Your task to perform on an android device: Open internet settings Image 0: 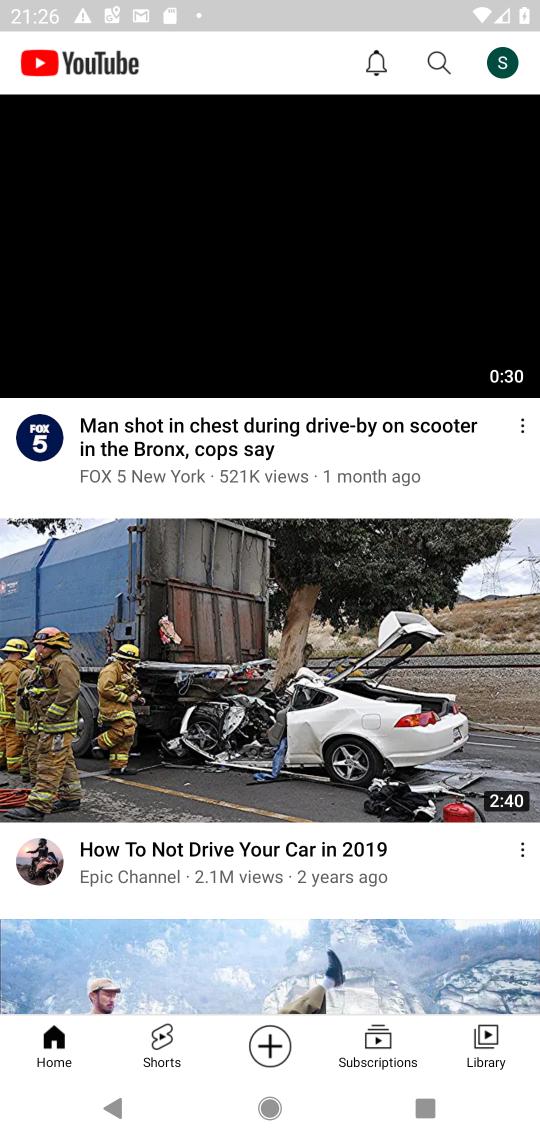
Step 0: press home button
Your task to perform on an android device: Open internet settings Image 1: 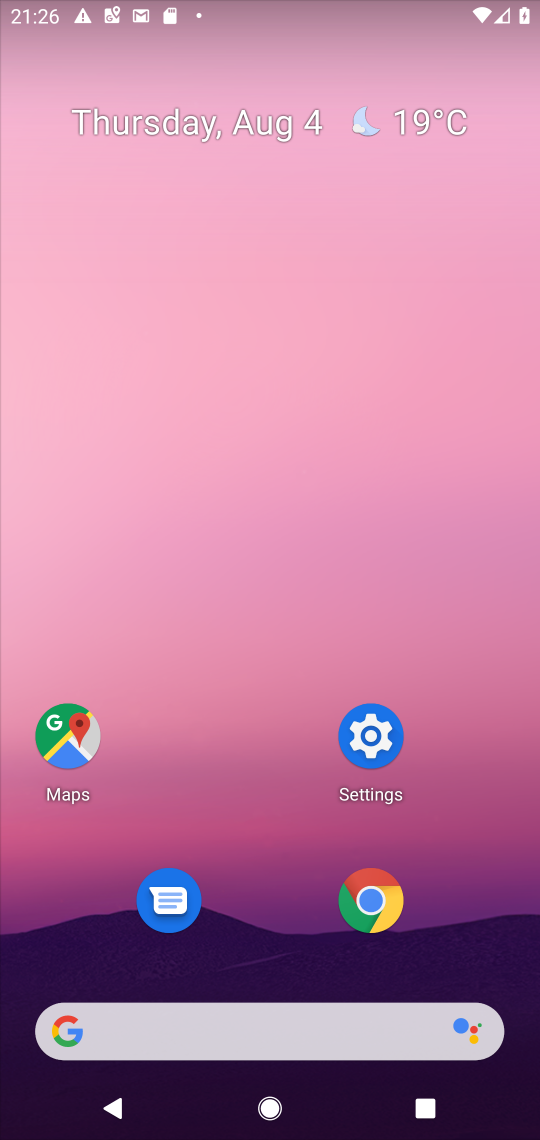
Step 1: click (374, 736)
Your task to perform on an android device: Open internet settings Image 2: 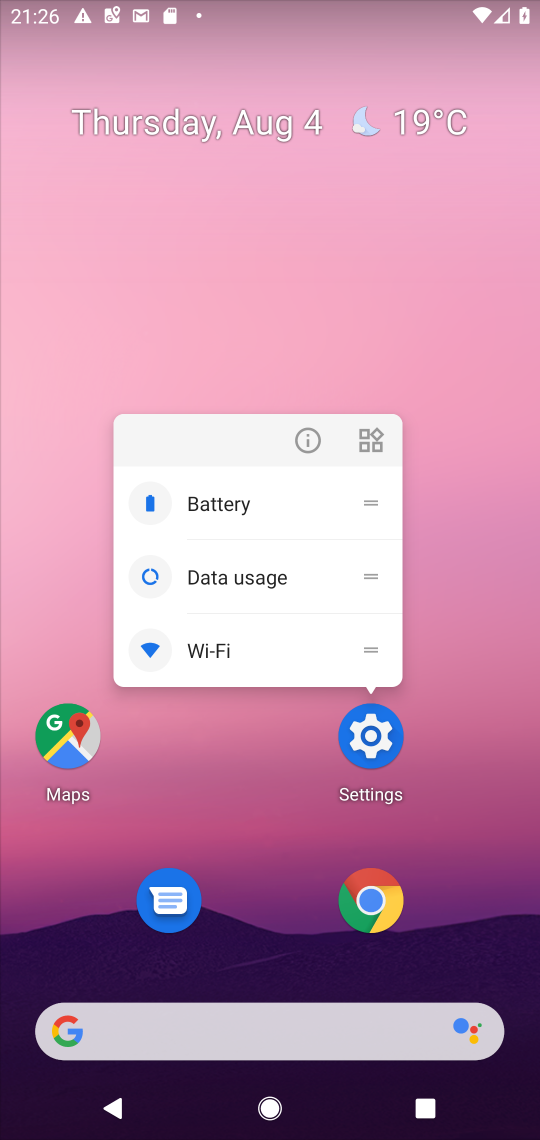
Step 2: click (374, 736)
Your task to perform on an android device: Open internet settings Image 3: 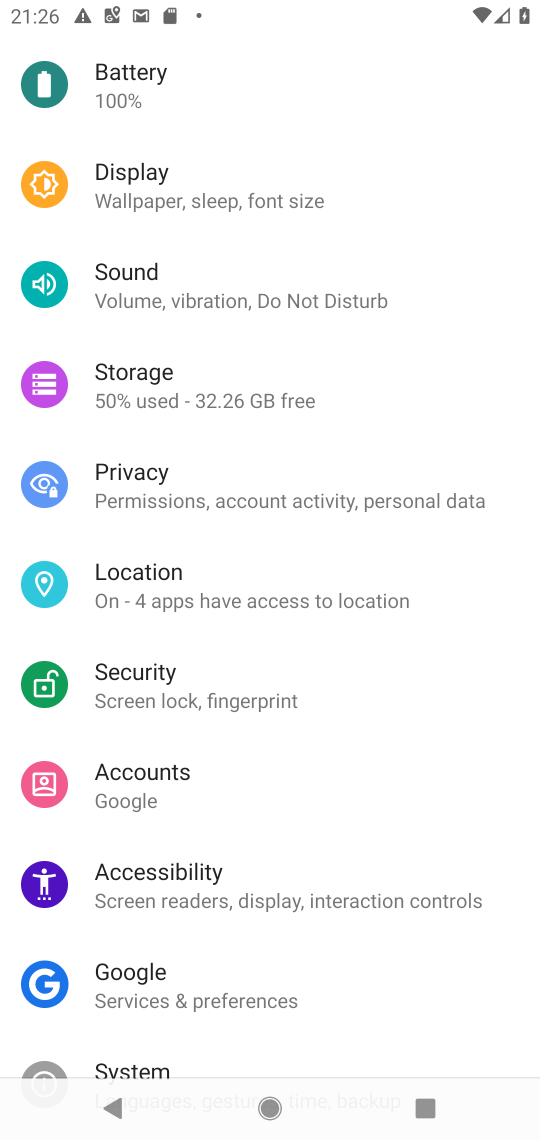
Step 3: drag from (306, 116) to (185, 873)
Your task to perform on an android device: Open internet settings Image 4: 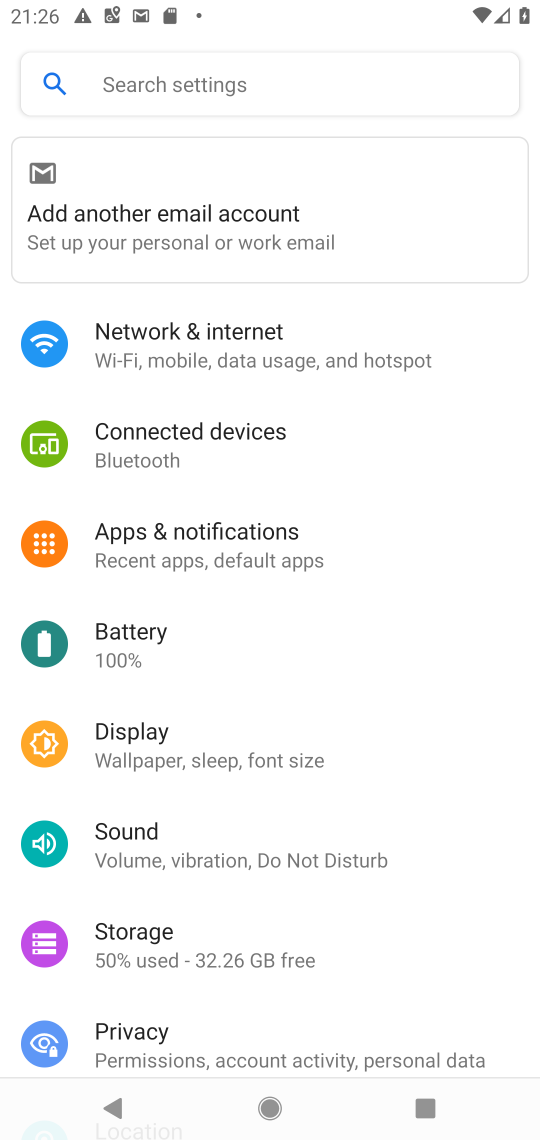
Step 4: click (164, 339)
Your task to perform on an android device: Open internet settings Image 5: 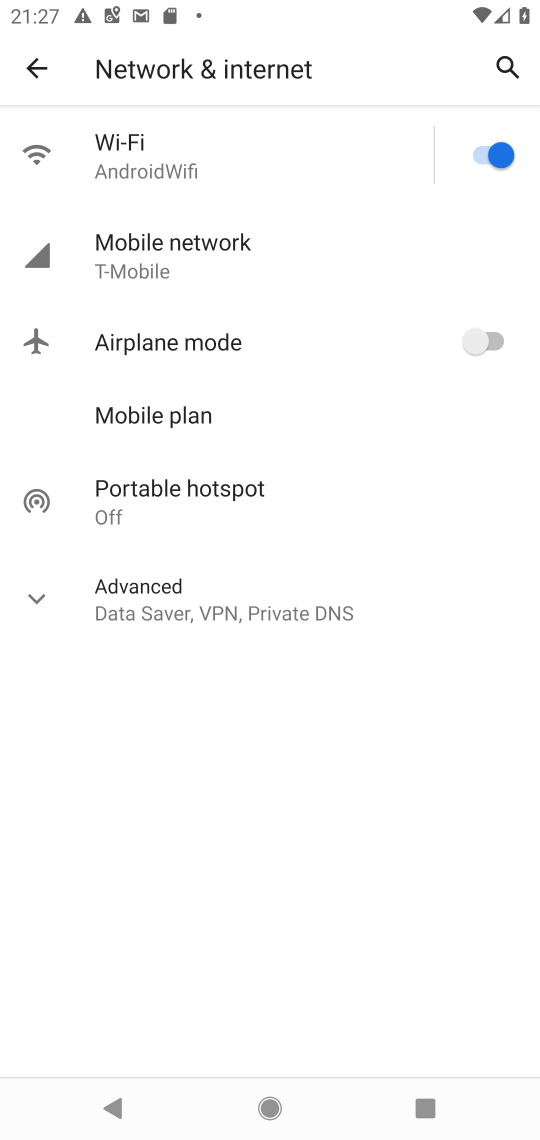
Step 5: task complete